Your task to perform on an android device: Open the calendar app, open the side menu, and click the "Day" option Image 0: 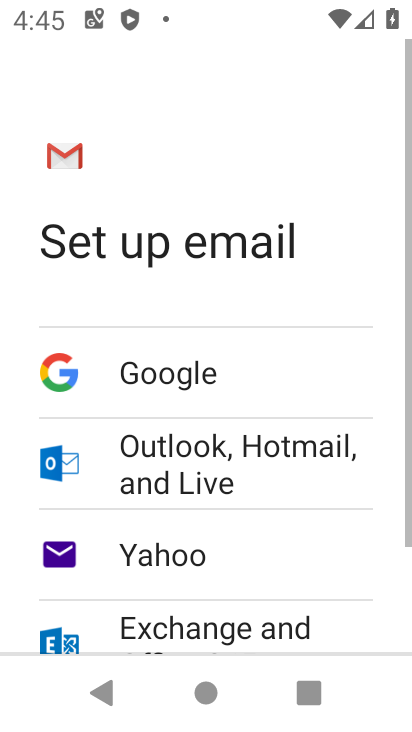
Step 0: press home button
Your task to perform on an android device: Open the calendar app, open the side menu, and click the "Day" option Image 1: 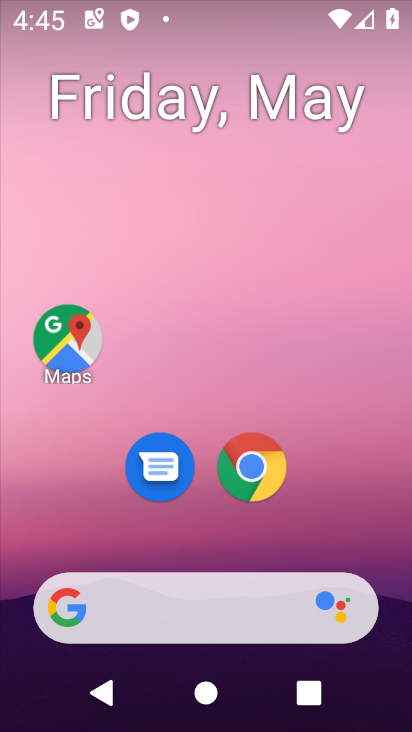
Step 1: drag from (303, 549) to (302, 111)
Your task to perform on an android device: Open the calendar app, open the side menu, and click the "Day" option Image 2: 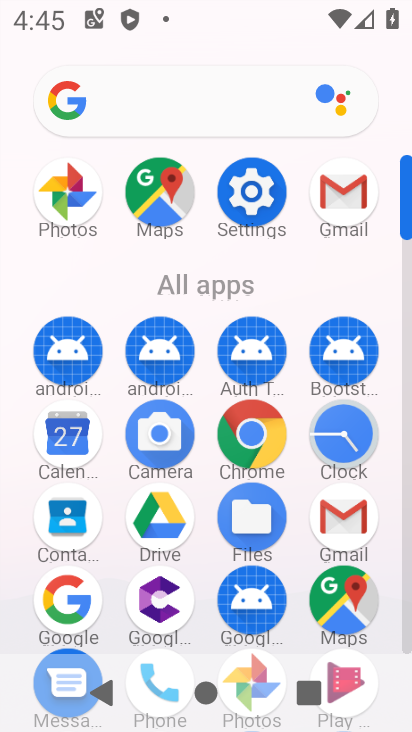
Step 2: click (51, 424)
Your task to perform on an android device: Open the calendar app, open the side menu, and click the "Day" option Image 3: 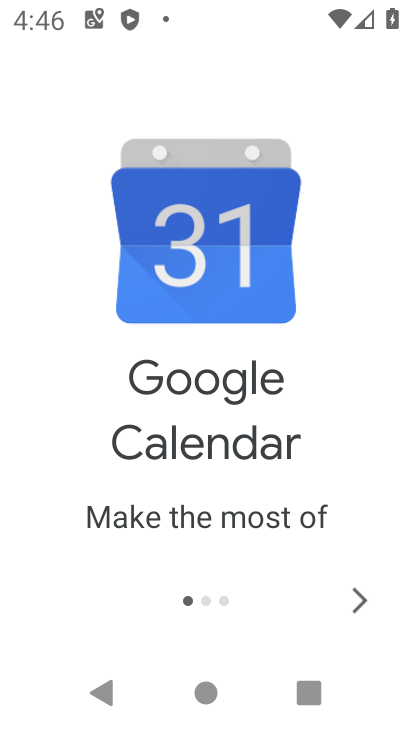
Step 3: click (360, 594)
Your task to perform on an android device: Open the calendar app, open the side menu, and click the "Day" option Image 4: 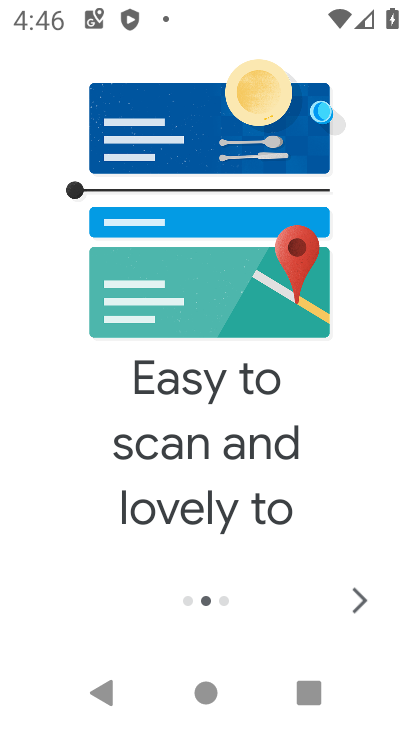
Step 4: click (360, 594)
Your task to perform on an android device: Open the calendar app, open the side menu, and click the "Day" option Image 5: 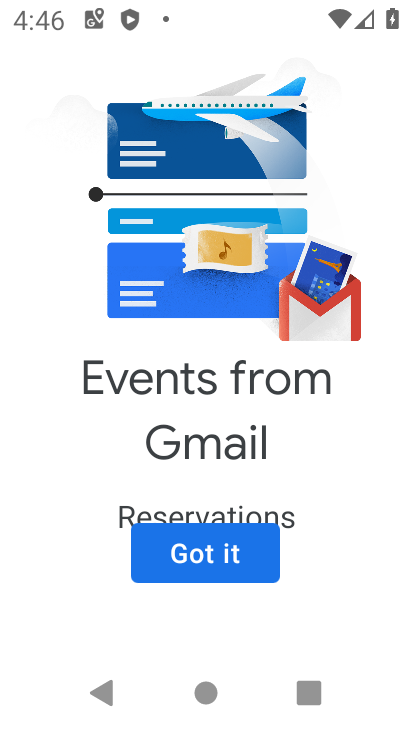
Step 5: click (244, 566)
Your task to perform on an android device: Open the calendar app, open the side menu, and click the "Day" option Image 6: 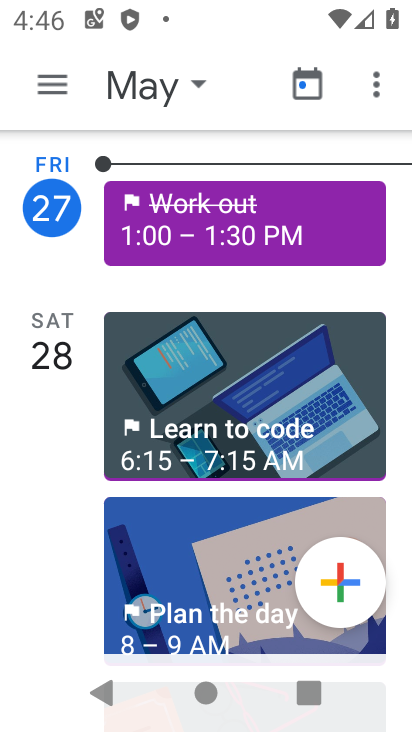
Step 6: click (56, 97)
Your task to perform on an android device: Open the calendar app, open the side menu, and click the "Day" option Image 7: 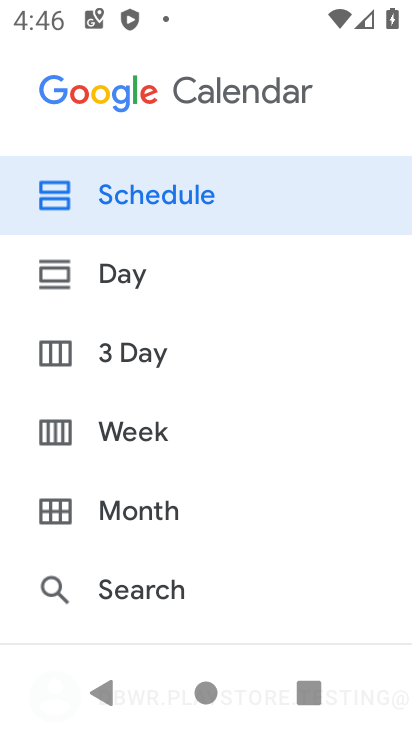
Step 7: click (144, 281)
Your task to perform on an android device: Open the calendar app, open the side menu, and click the "Day" option Image 8: 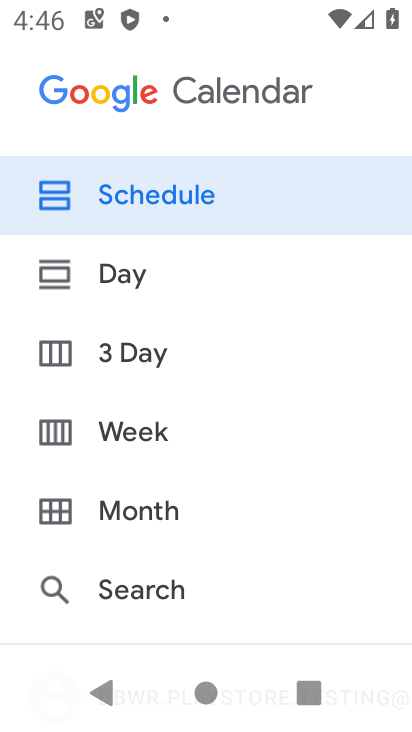
Step 8: click (144, 281)
Your task to perform on an android device: Open the calendar app, open the side menu, and click the "Day" option Image 9: 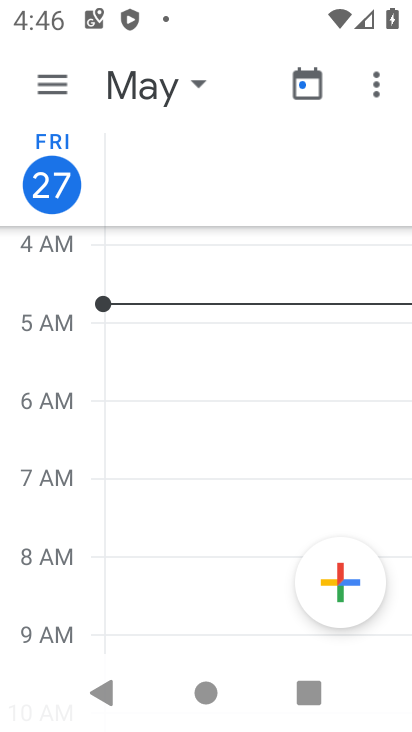
Step 9: task complete